Your task to perform on an android device: Open wifi settings Image 0: 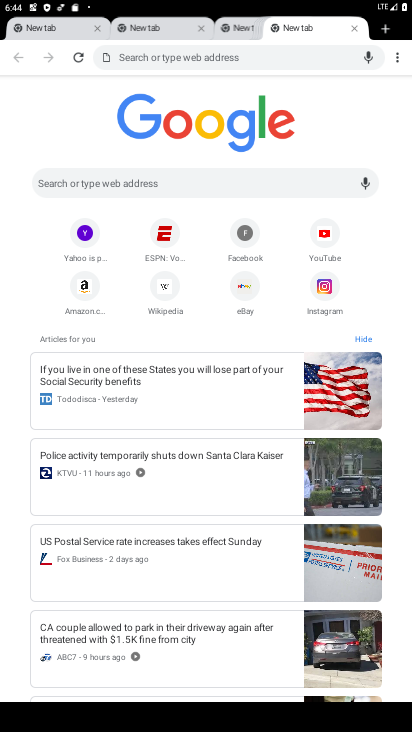
Step 0: press home button
Your task to perform on an android device: Open wifi settings Image 1: 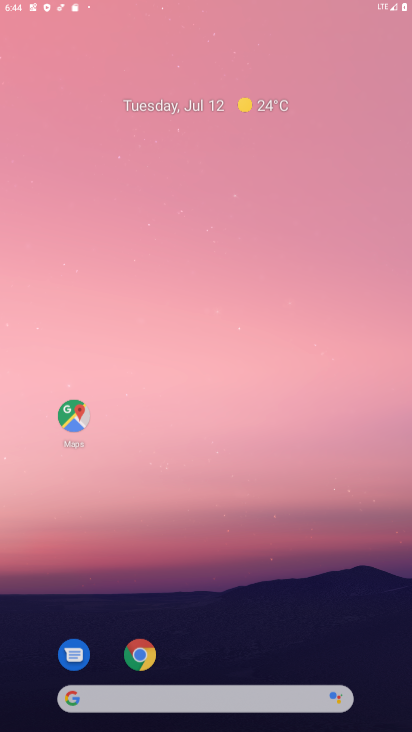
Step 1: drag from (359, 596) to (247, 0)
Your task to perform on an android device: Open wifi settings Image 2: 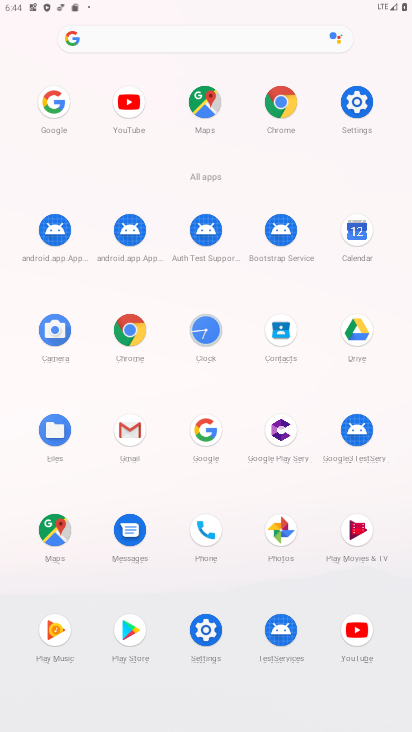
Step 2: click (349, 116)
Your task to perform on an android device: Open wifi settings Image 3: 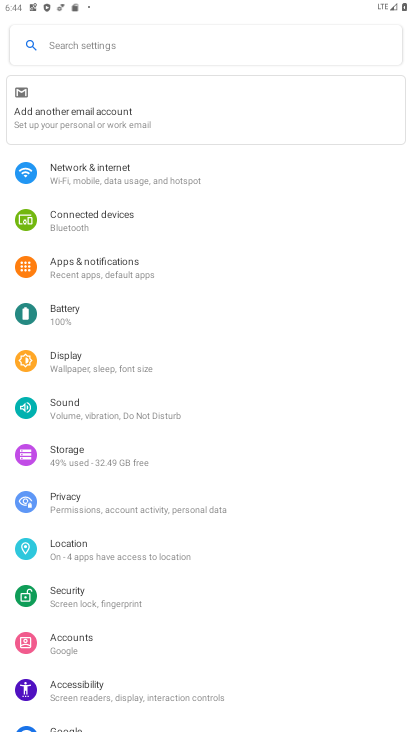
Step 3: click (74, 167)
Your task to perform on an android device: Open wifi settings Image 4: 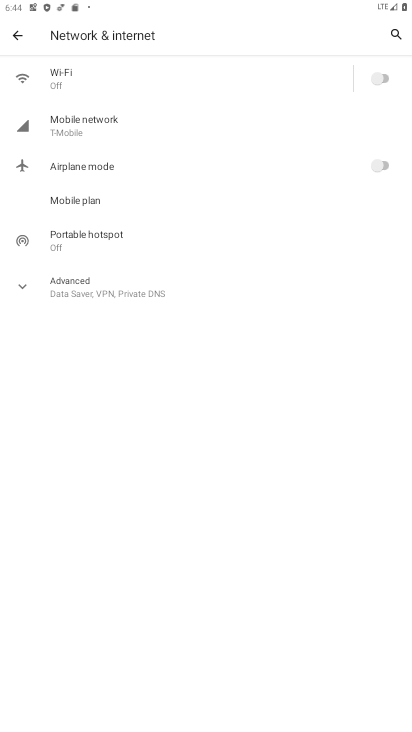
Step 4: click (171, 78)
Your task to perform on an android device: Open wifi settings Image 5: 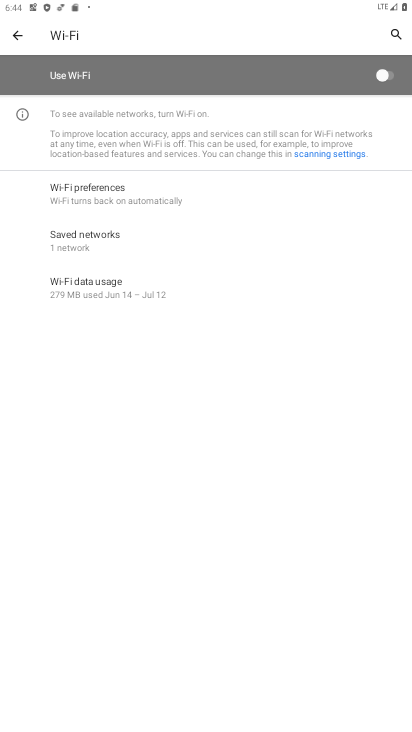
Step 5: task complete